Your task to perform on an android device: toggle translation in the chrome app Image 0: 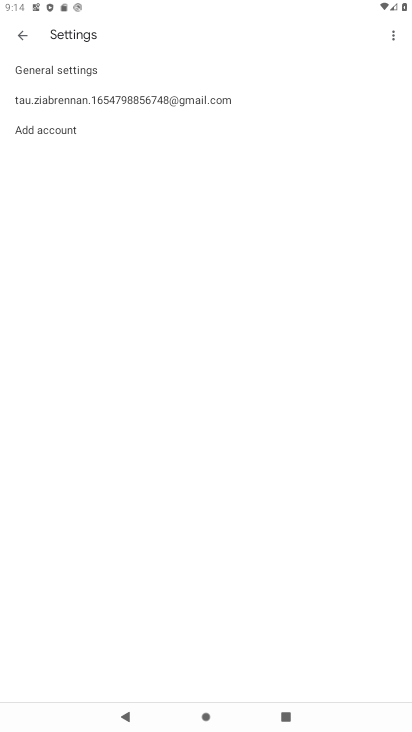
Step 0: press home button
Your task to perform on an android device: toggle translation in the chrome app Image 1: 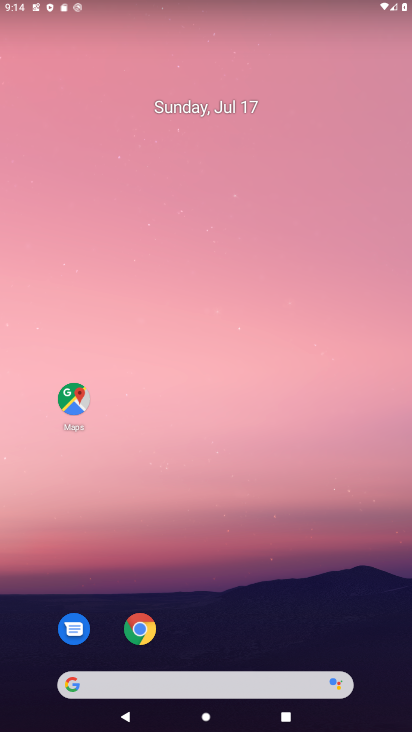
Step 1: drag from (237, 628) to (292, 3)
Your task to perform on an android device: toggle translation in the chrome app Image 2: 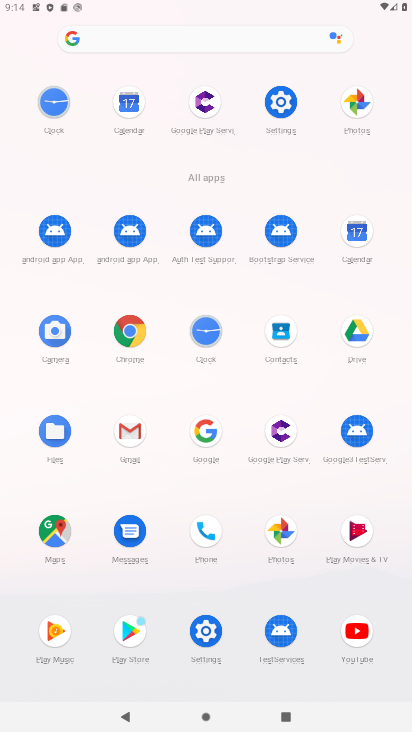
Step 2: click (122, 341)
Your task to perform on an android device: toggle translation in the chrome app Image 3: 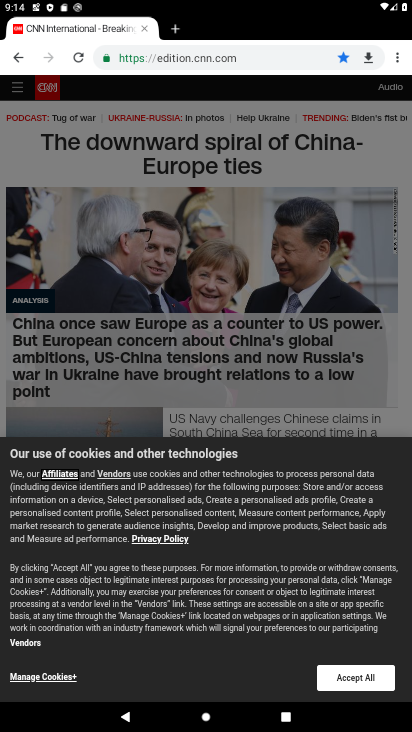
Step 3: click (399, 63)
Your task to perform on an android device: toggle translation in the chrome app Image 4: 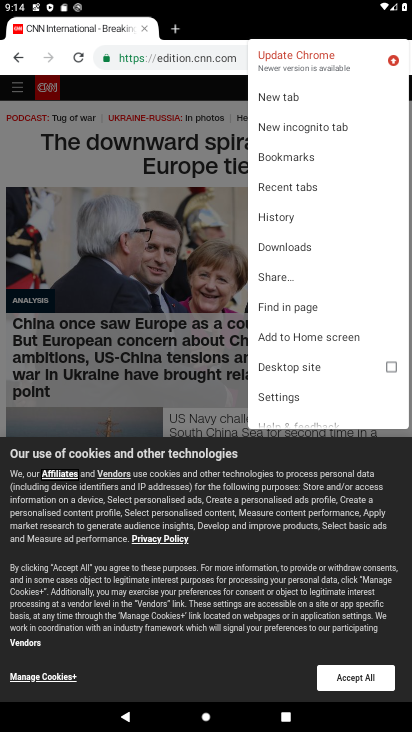
Step 4: click (287, 397)
Your task to perform on an android device: toggle translation in the chrome app Image 5: 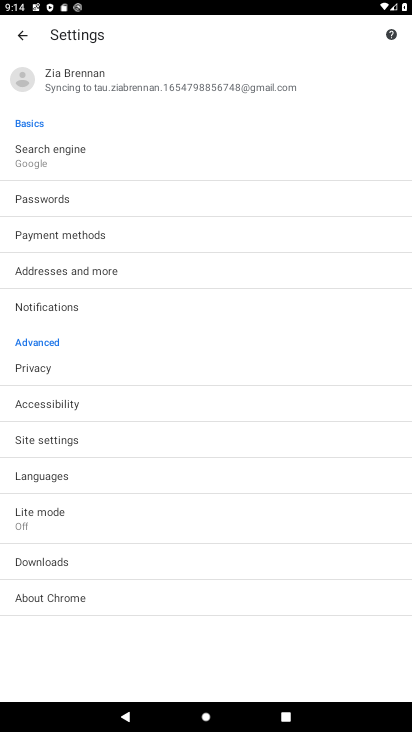
Step 5: click (57, 519)
Your task to perform on an android device: toggle translation in the chrome app Image 6: 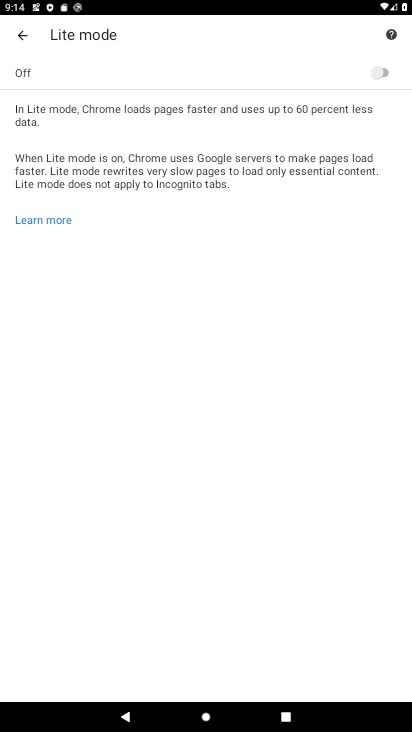
Step 6: click (28, 31)
Your task to perform on an android device: toggle translation in the chrome app Image 7: 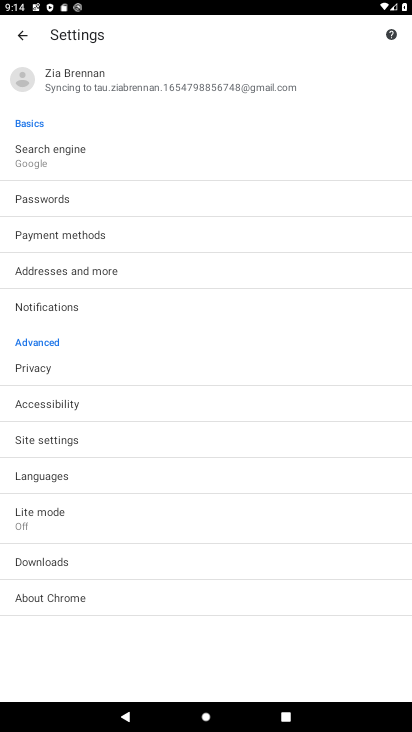
Step 7: click (51, 474)
Your task to perform on an android device: toggle translation in the chrome app Image 8: 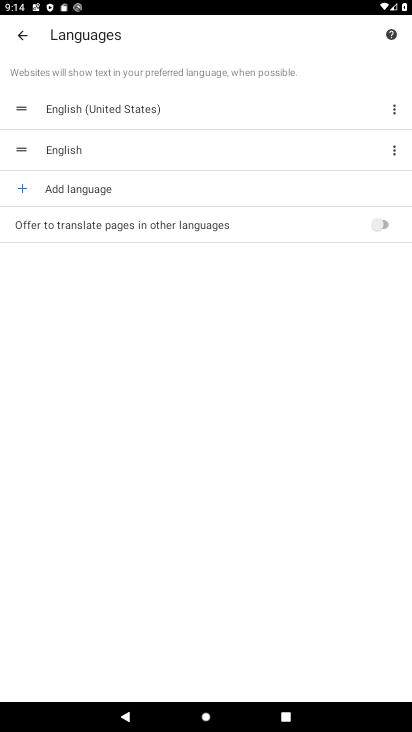
Step 8: click (403, 223)
Your task to perform on an android device: toggle translation in the chrome app Image 9: 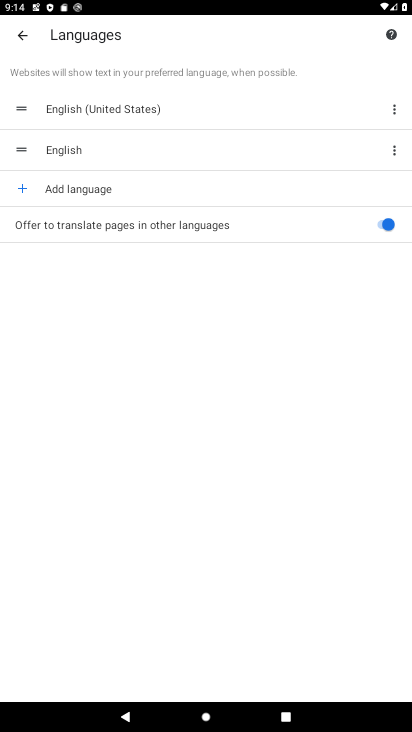
Step 9: task complete